Your task to perform on an android device: turn off sleep mode Image 0: 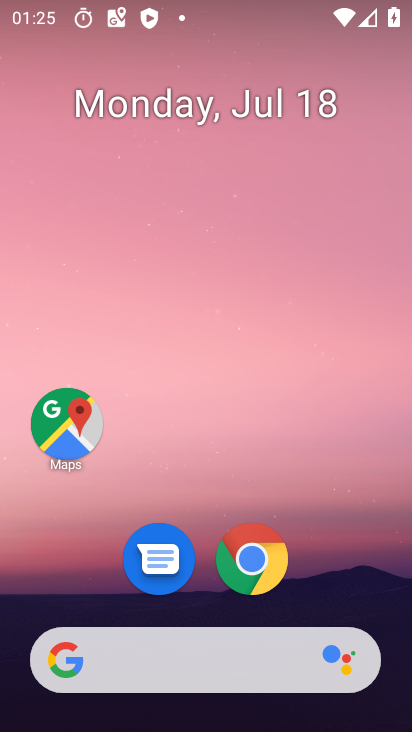
Step 0: drag from (53, 562) to (249, 0)
Your task to perform on an android device: turn off sleep mode Image 1: 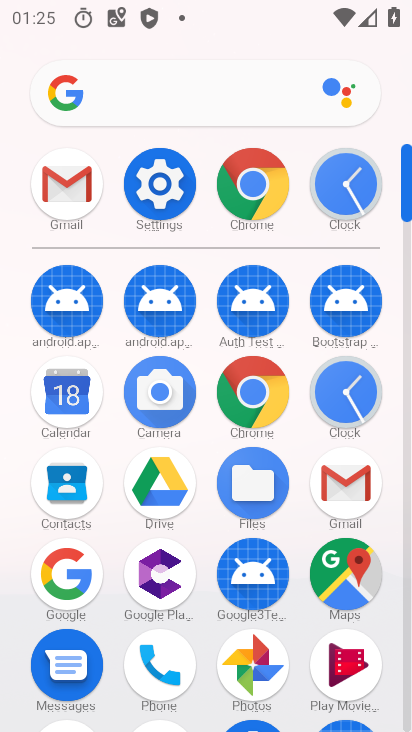
Step 1: click (157, 192)
Your task to perform on an android device: turn off sleep mode Image 2: 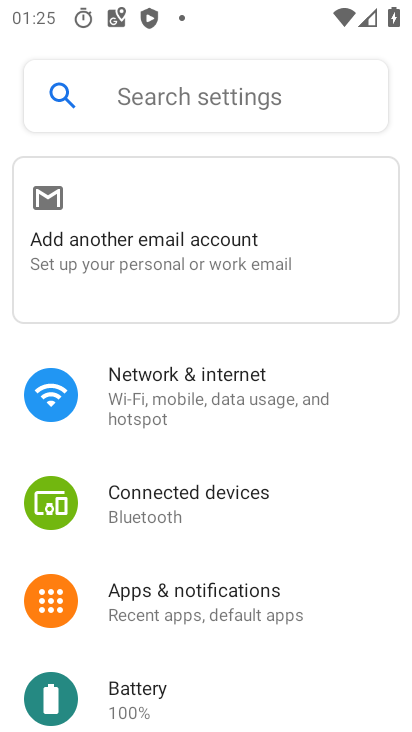
Step 2: click (148, 83)
Your task to perform on an android device: turn off sleep mode Image 3: 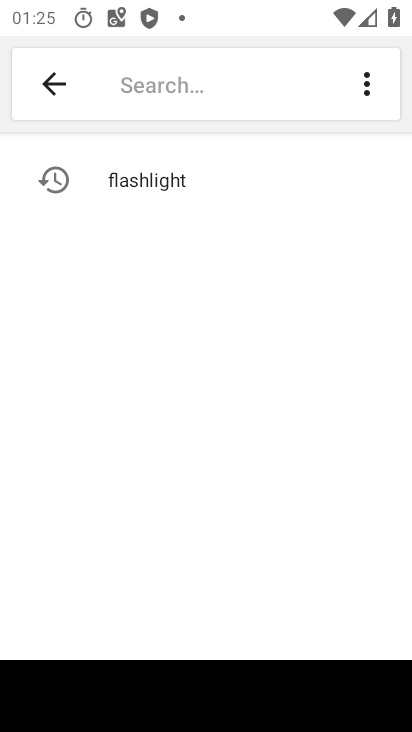
Step 3: type "sleep mode"
Your task to perform on an android device: turn off sleep mode Image 4: 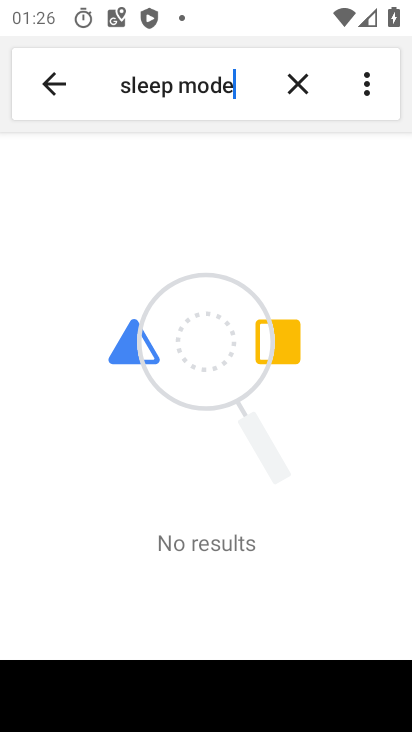
Step 4: task complete